Your task to perform on an android device: open app "Microsoft Outlook" (install if not already installed), go to login, and select forgot password Image 0: 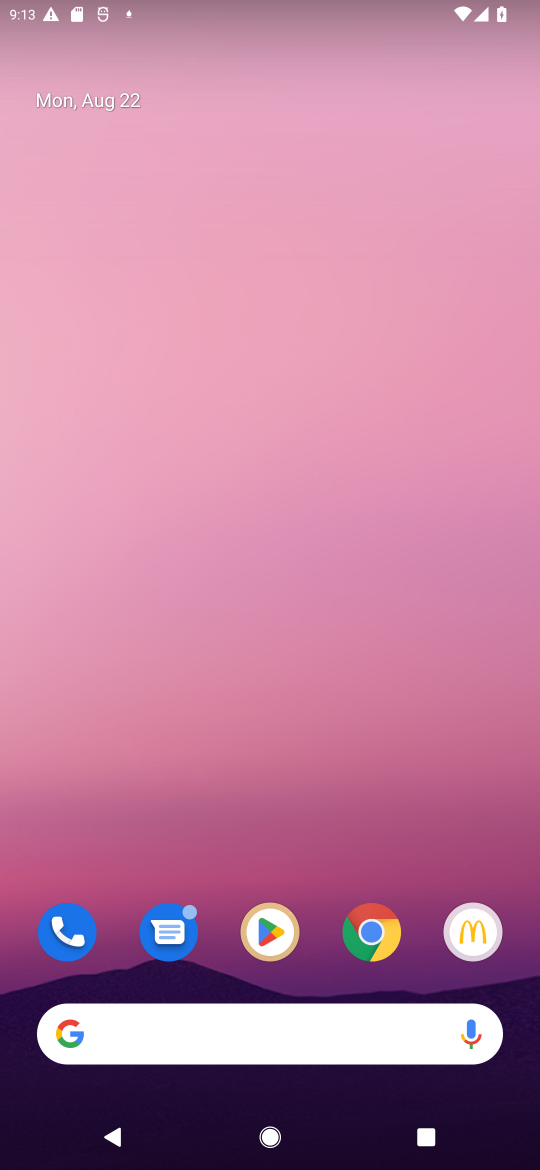
Step 0: click (289, 917)
Your task to perform on an android device: open app "Microsoft Outlook" (install if not already installed), go to login, and select forgot password Image 1: 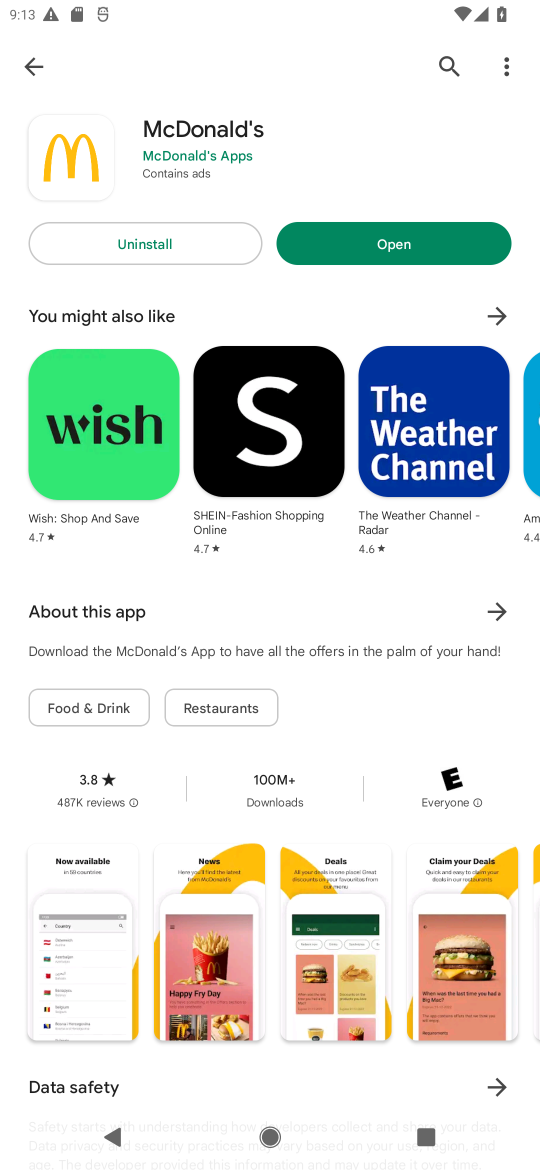
Step 1: click (428, 57)
Your task to perform on an android device: open app "Microsoft Outlook" (install if not already installed), go to login, and select forgot password Image 2: 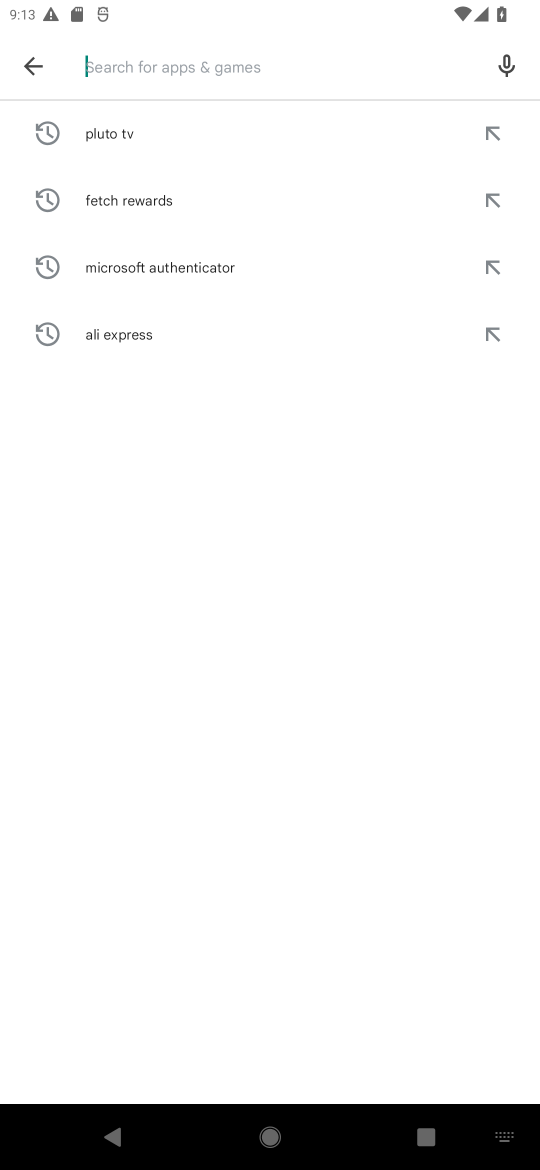
Step 2: type "microsoft outlook"
Your task to perform on an android device: open app "Microsoft Outlook" (install if not already installed), go to login, and select forgot password Image 3: 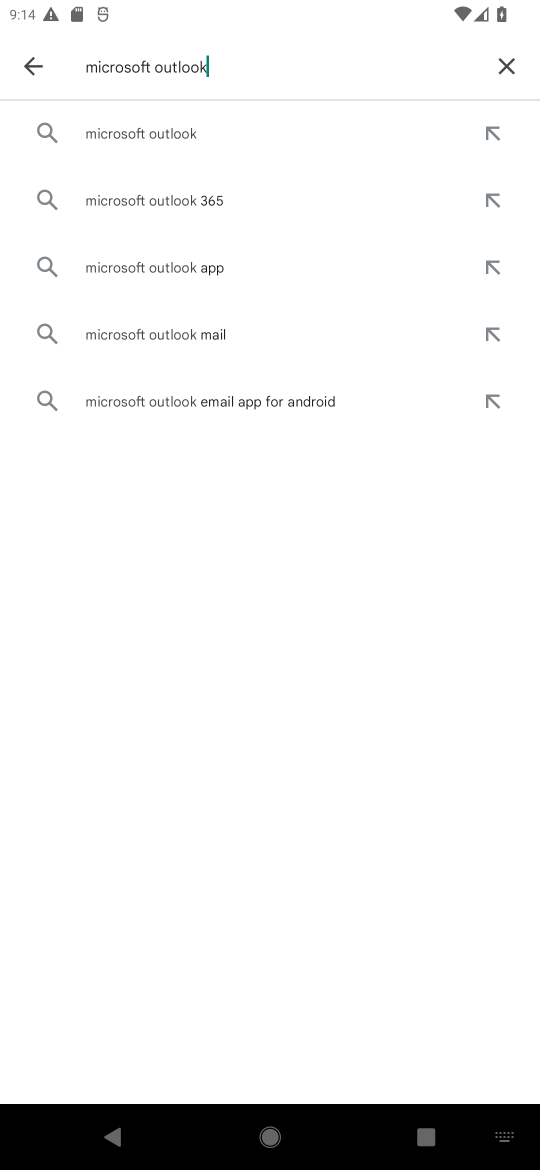
Step 3: click (134, 143)
Your task to perform on an android device: open app "Microsoft Outlook" (install if not already installed), go to login, and select forgot password Image 4: 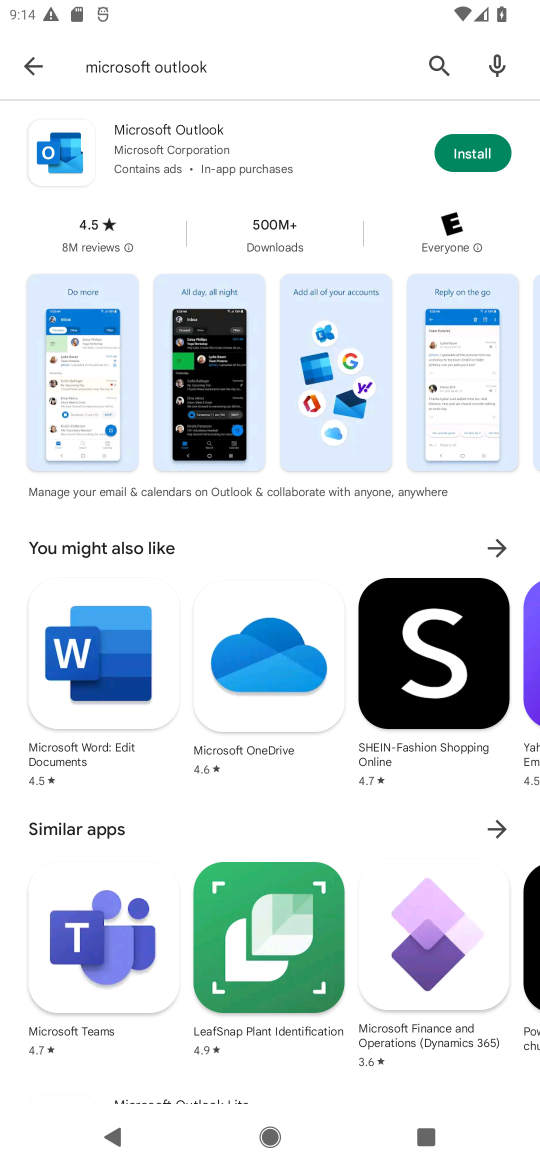
Step 4: click (437, 153)
Your task to perform on an android device: open app "Microsoft Outlook" (install if not already installed), go to login, and select forgot password Image 5: 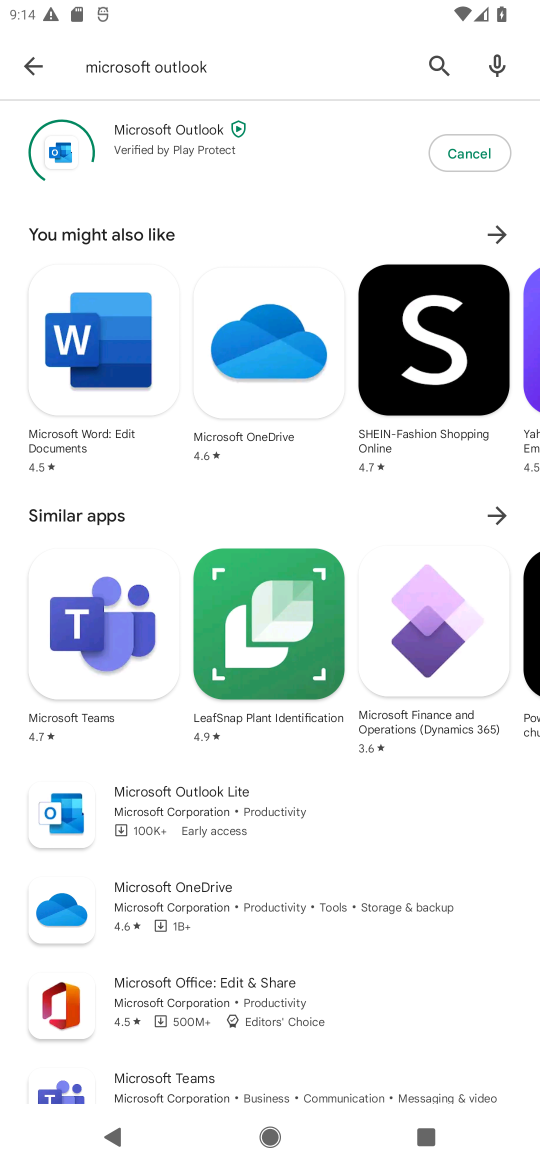
Step 5: task complete